Your task to perform on an android device: Open Chrome and go to settings Image 0: 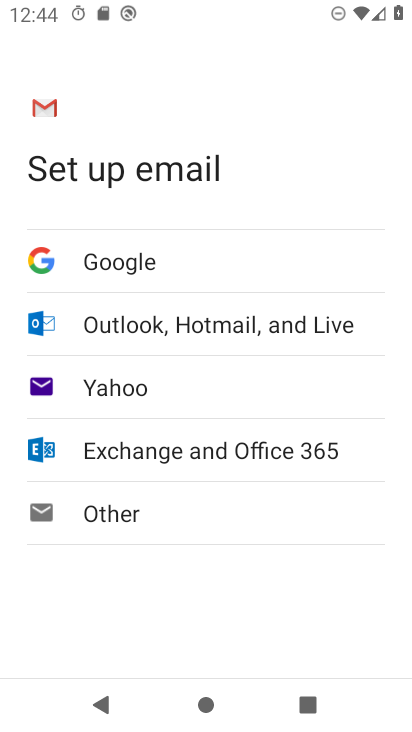
Step 0: press home button
Your task to perform on an android device: Open Chrome and go to settings Image 1: 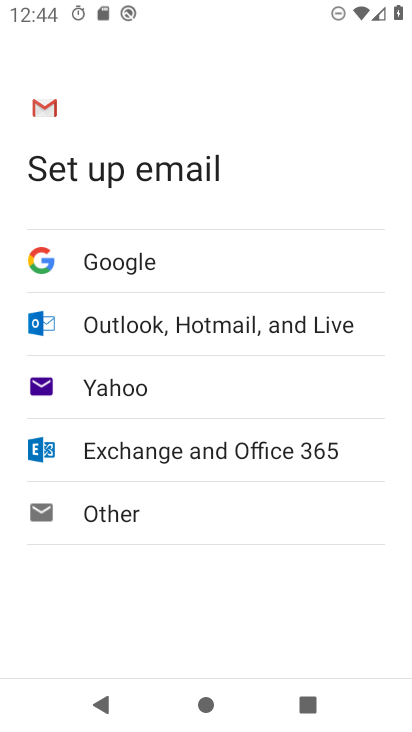
Step 1: press home button
Your task to perform on an android device: Open Chrome and go to settings Image 2: 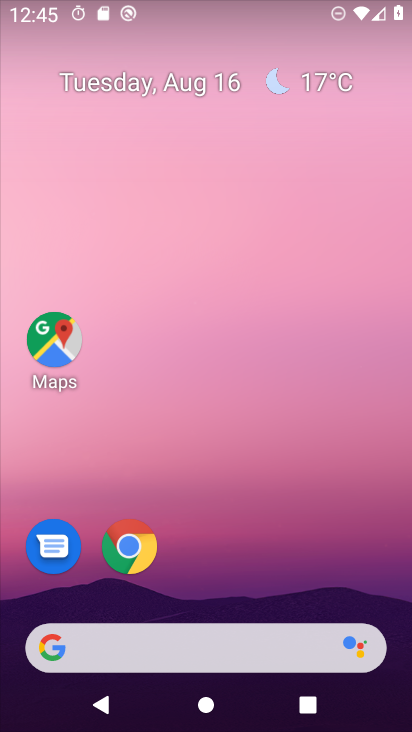
Step 2: click (119, 545)
Your task to perform on an android device: Open Chrome and go to settings Image 3: 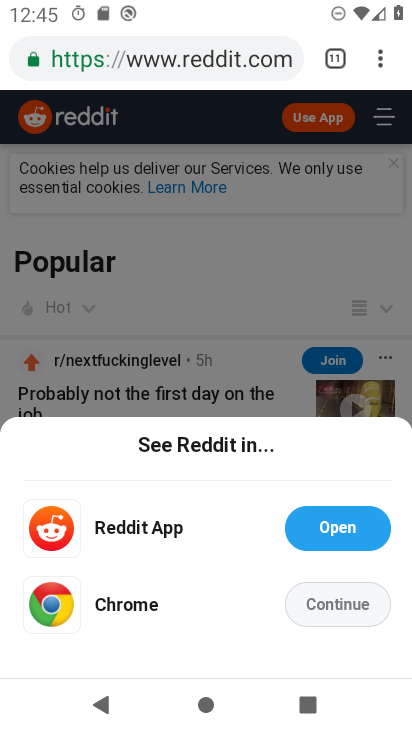
Step 3: task complete